Your task to perform on an android device: add a contact Image 0: 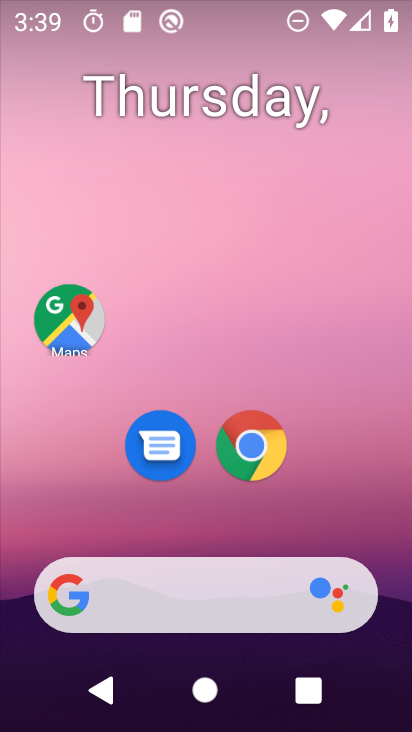
Step 0: drag from (307, 496) to (234, 85)
Your task to perform on an android device: add a contact Image 1: 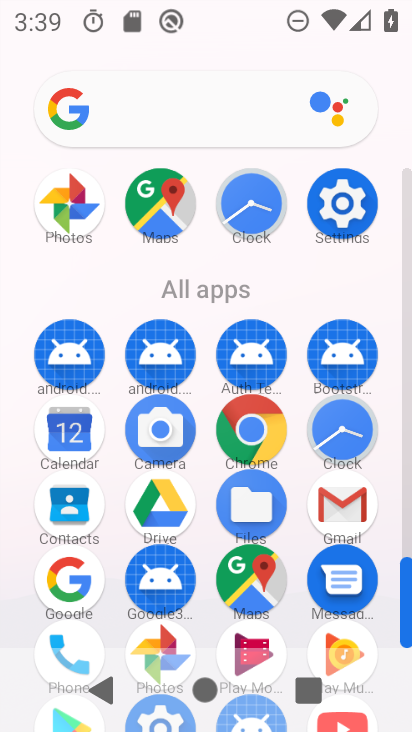
Step 1: click (75, 501)
Your task to perform on an android device: add a contact Image 2: 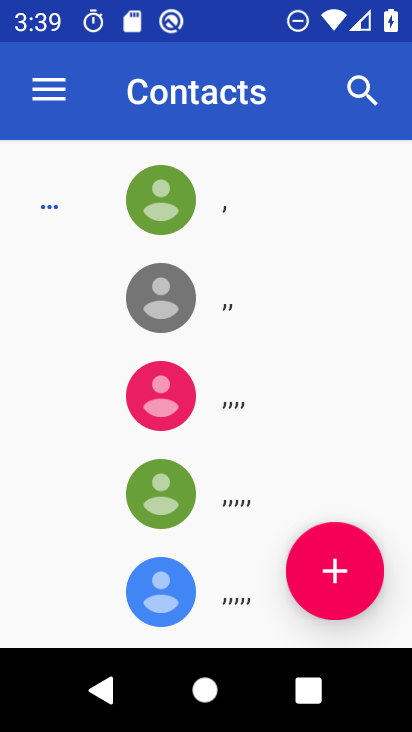
Step 2: click (336, 573)
Your task to perform on an android device: add a contact Image 3: 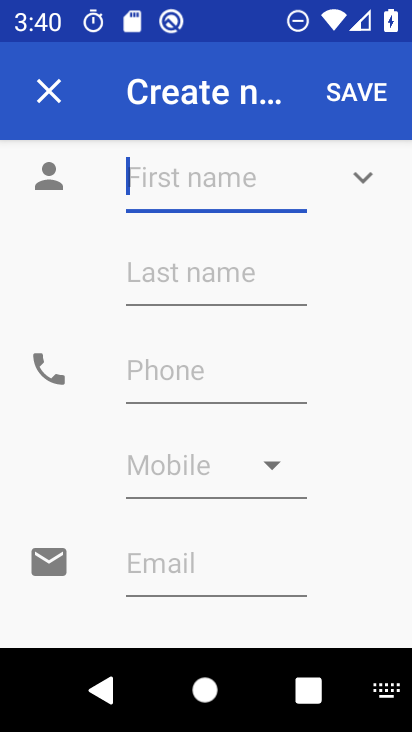
Step 3: click (201, 194)
Your task to perform on an android device: add a contact Image 4: 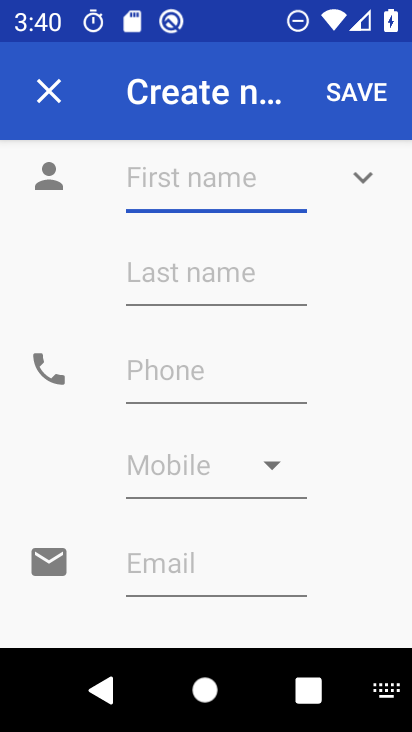
Step 4: type "Sukhwinder"
Your task to perform on an android device: add a contact Image 5: 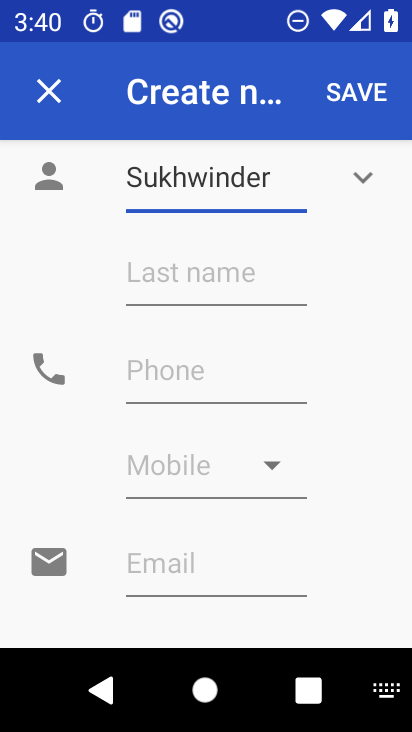
Step 5: click (202, 280)
Your task to perform on an android device: add a contact Image 6: 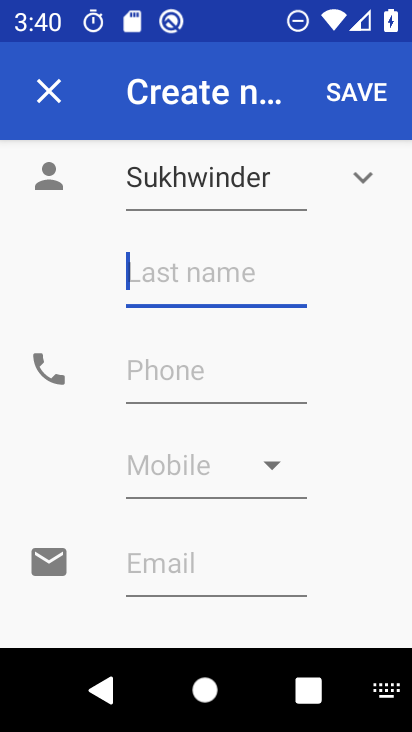
Step 6: type "Singh"
Your task to perform on an android device: add a contact Image 7: 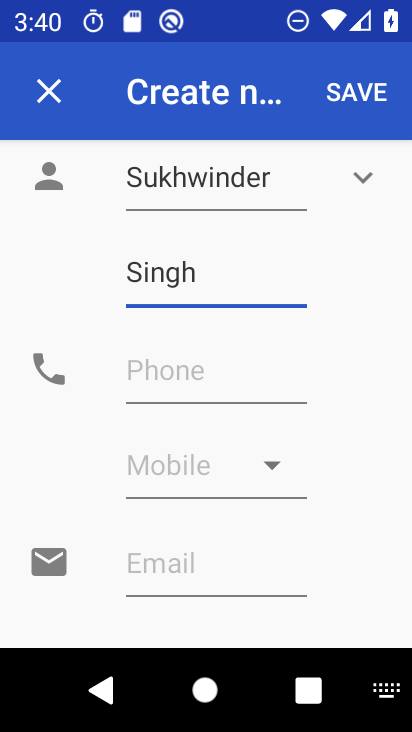
Step 7: click (215, 381)
Your task to perform on an android device: add a contact Image 8: 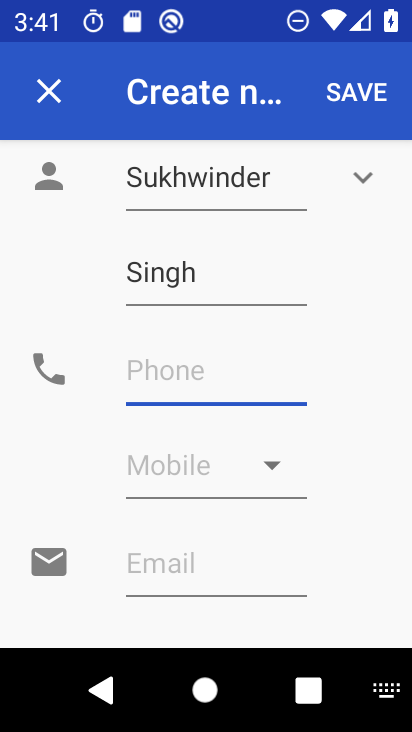
Step 8: type "099443256754"
Your task to perform on an android device: add a contact Image 9: 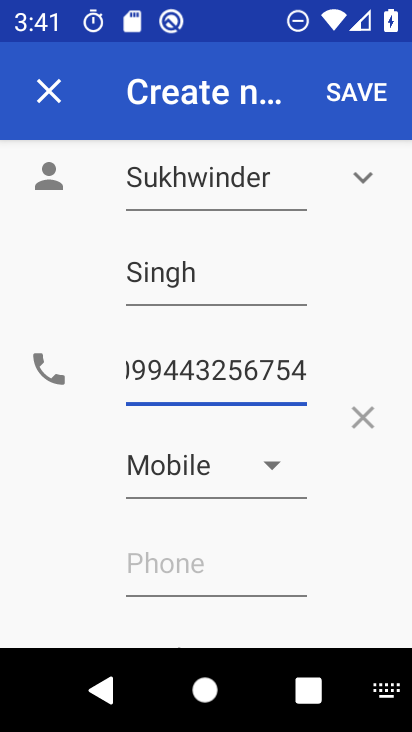
Step 9: click (363, 78)
Your task to perform on an android device: add a contact Image 10: 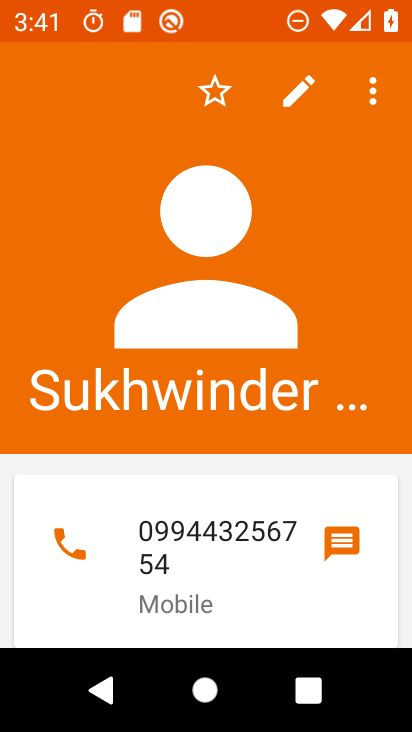
Step 10: task complete